Your task to perform on an android device: turn on airplane mode Image 0: 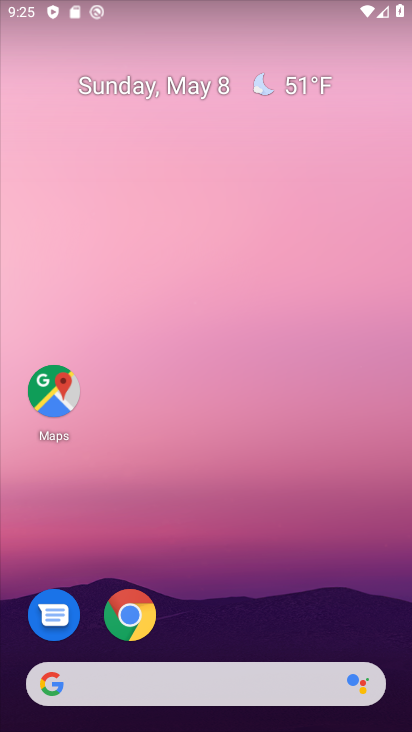
Step 0: drag from (213, 585) to (250, 114)
Your task to perform on an android device: turn on airplane mode Image 1: 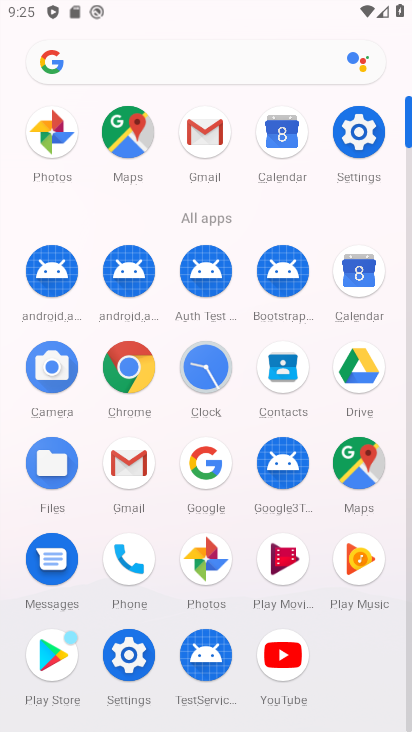
Step 1: click (343, 121)
Your task to perform on an android device: turn on airplane mode Image 2: 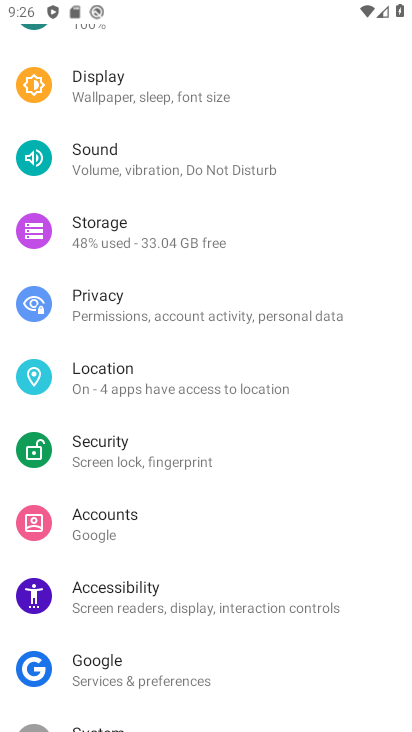
Step 2: drag from (156, 191) to (158, 549)
Your task to perform on an android device: turn on airplane mode Image 3: 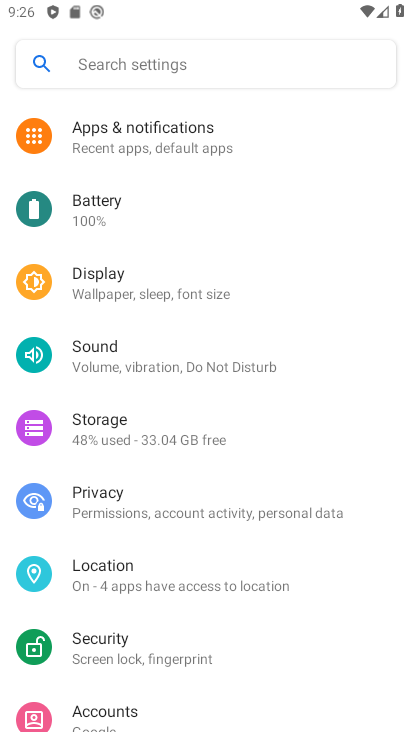
Step 3: click (148, 143)
Your task to perform on an android device: turn on airplane mode Image 4: 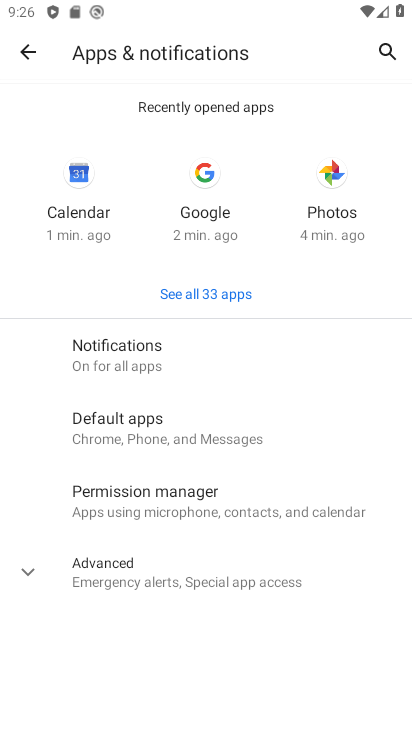
Step 4: press back button
Your task to perform on an android device: turn on airplane mode Image 5: 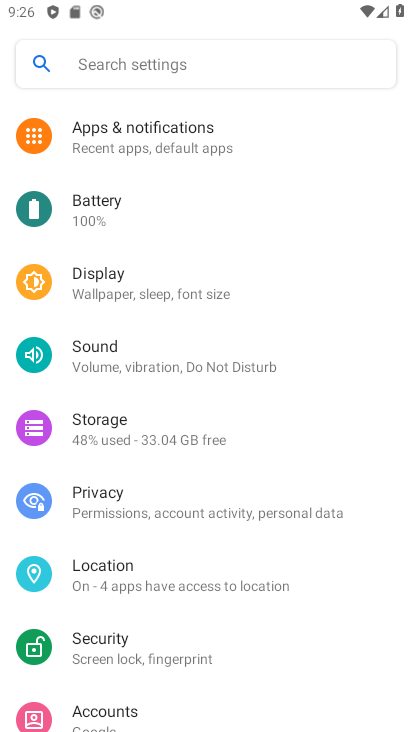
Step 5: drag from (202, 138) to (208, 618)
Your task to perform on an android device: turn on airplane mode Image 6: 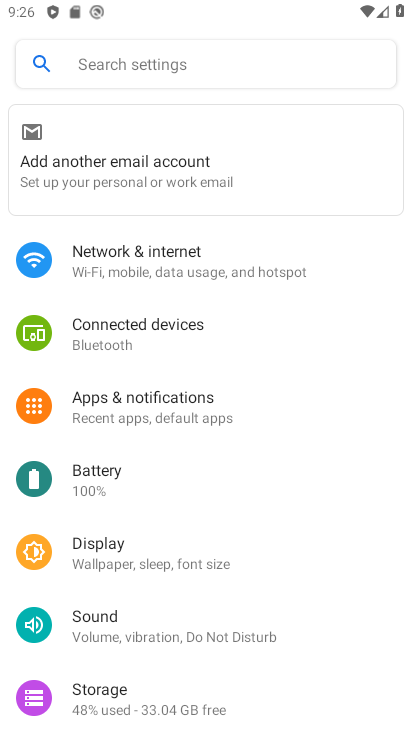
Step 6: click (150, 235)
Your task to perform on an android device: turn on airplane mode Image 7: 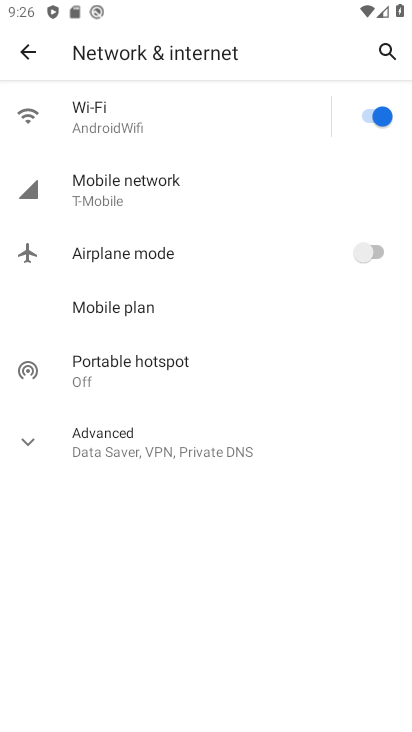
Step 7: click (381, 249)
Your task to perform on an android device: turn on airplane mode Image 8: 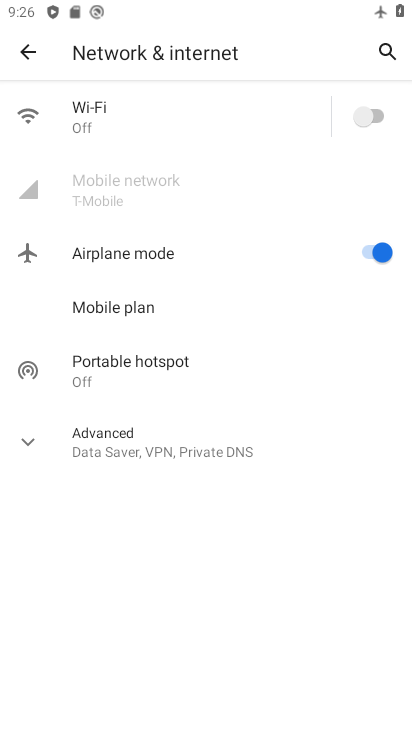
Step 8: task complete